Your task to perform on an android device: What's the weather going to be tomorrow? Image 0: 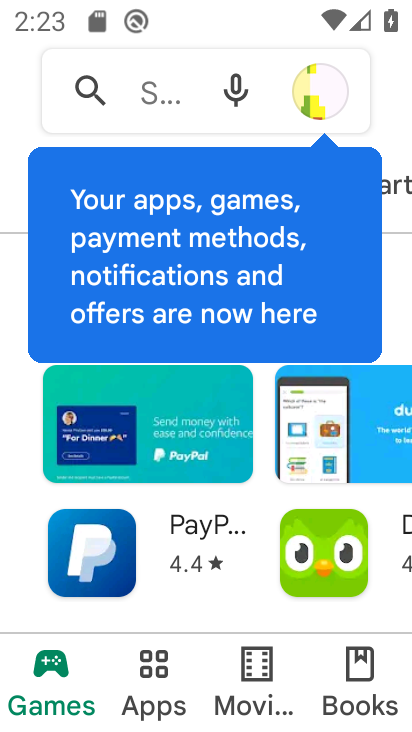
Step 0: press home button
Your task to perform on an android device: What's the weather going to be tomorrow? Image 1: 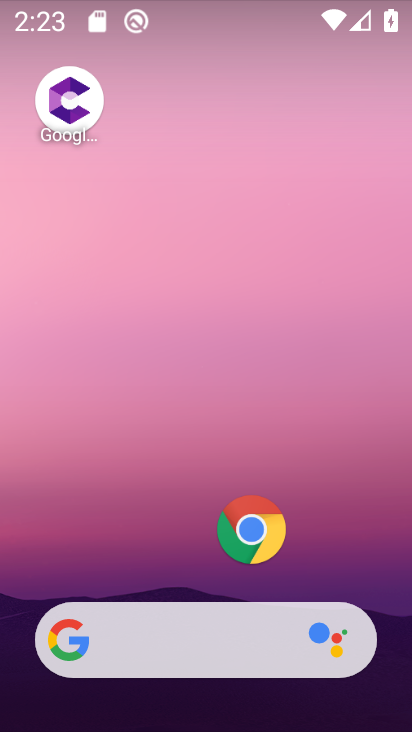
Step 1: drag from (151, 455) to (146, 174)
Your task to perform on an android device: What's the weather going to be tomorrow? Image 2: 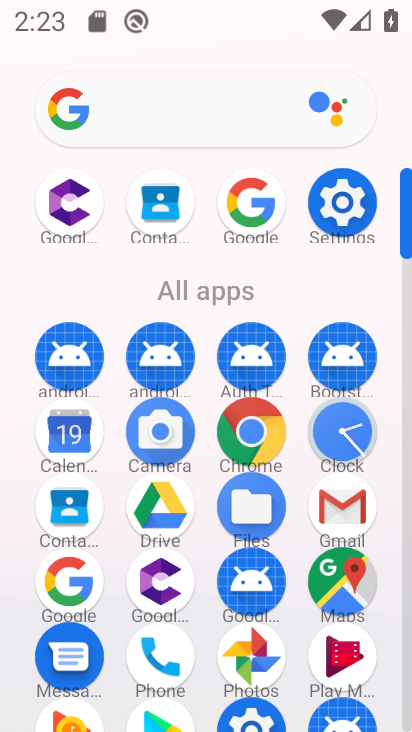
Step 2: click (76, 582)
Your task to perform on an android device: What's the weather going to be tomorrow? Image 3: 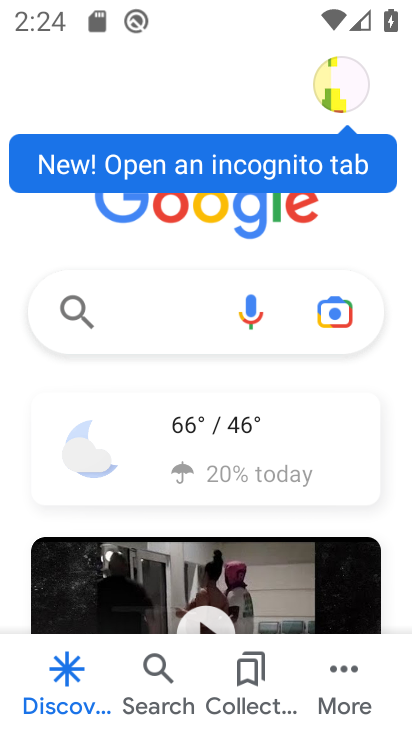
Step 3: click (174, 321)
Your task to perform on an android device: What's the weather going to be tomorrow? Image 4: 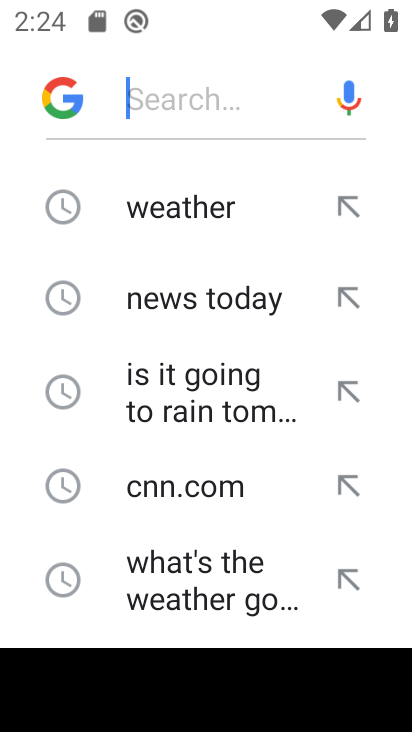
Step 4: click (238, 582)
Your task to perform on an android device: What's the weather going to be tomorrow? Image 5: 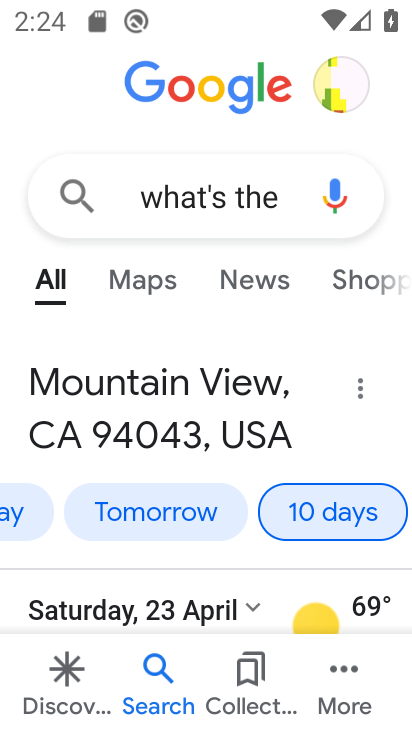
Step 5: click (162, 515)
Your task to perform on an android device: What's the weather going to be tomorrow? Image 6: 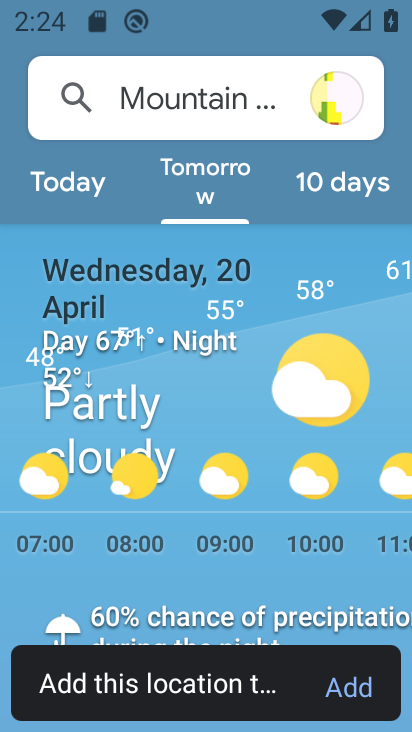
Step 6: task complete